Your task to perform on an android device: Go to sound settings Image 0: 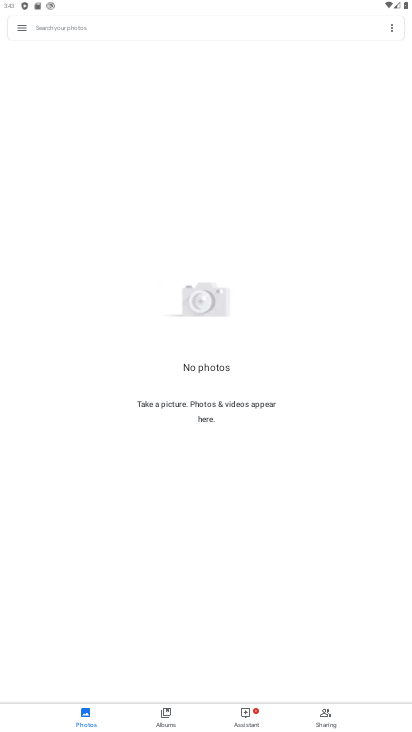
Step 0: press home button
Your task to perform on an android device: Go to sound settings Image 1: 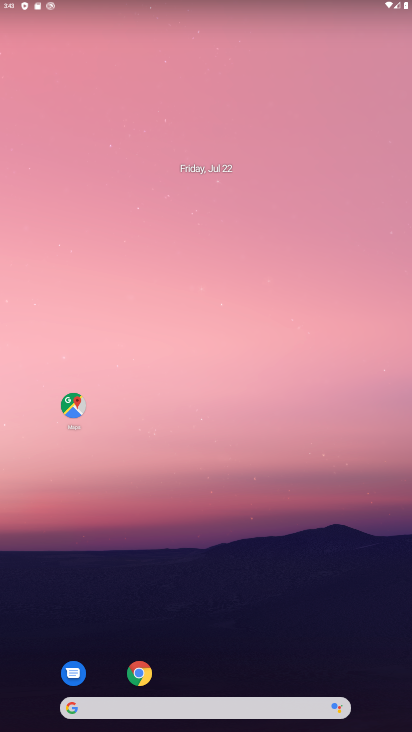
Step 1: drag from (184, 557) to (236, 85)
Your task to perform on an android device: Go to sound settings Image 2: 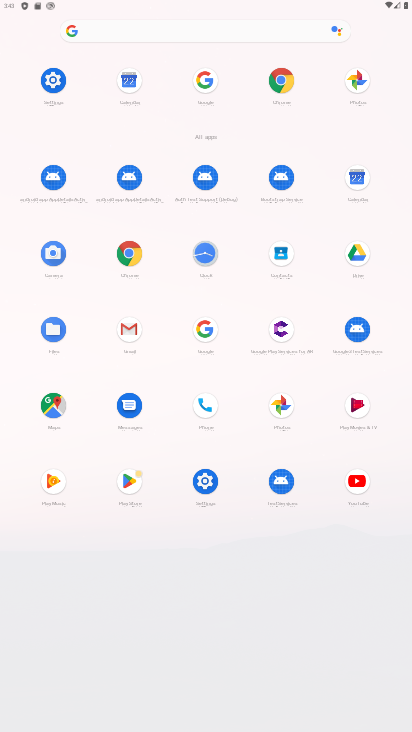
Step 2: click (202, 480)
Your task to perform on an android device: Go to sound settings Image 3: 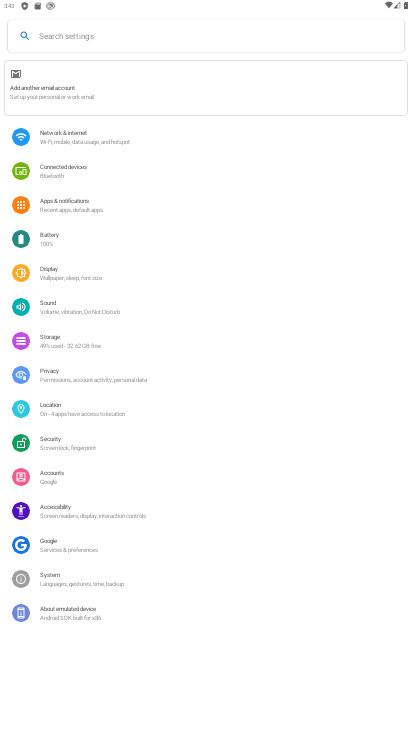
Step 3: click (77, 305)
Your task to perform on an android device: Go to sound settings Image 4: 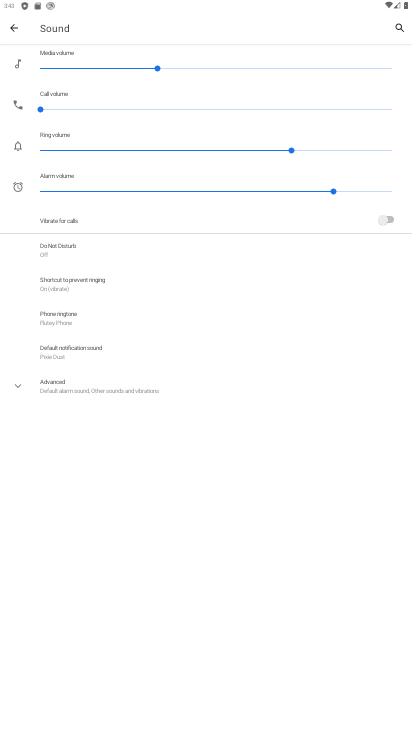
Step 4: task complete